Your task to perform on an android device: set the stopwatch Image 0: 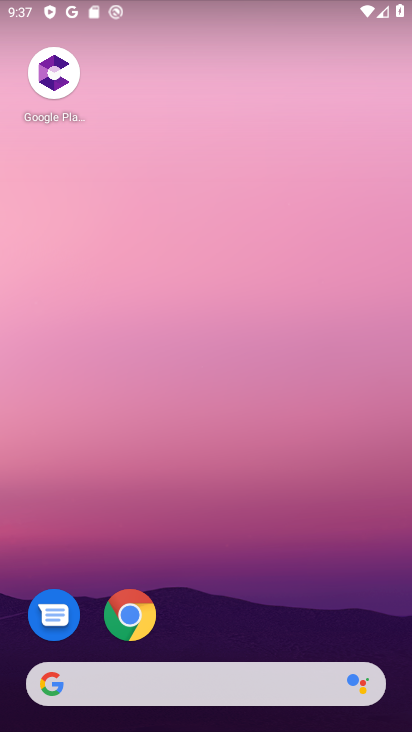
Step 0: drag from (338, 644) to (289, 182)
Your task to perform on an android device: set the stopwatch Image 1: 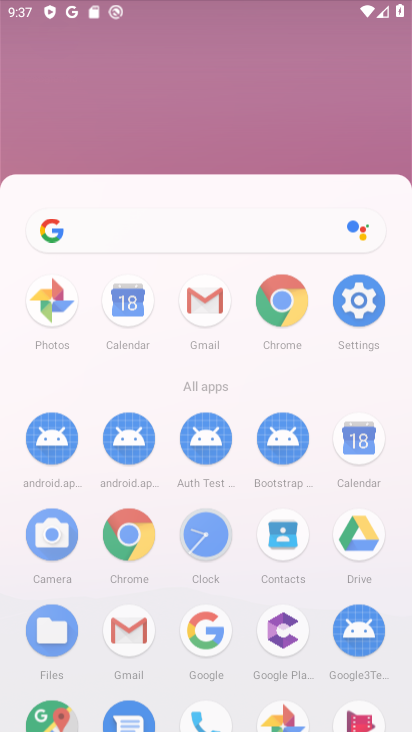
Step 1: click (288, 175)
Your task to perform on an android device: set the stopwatch Image 2: 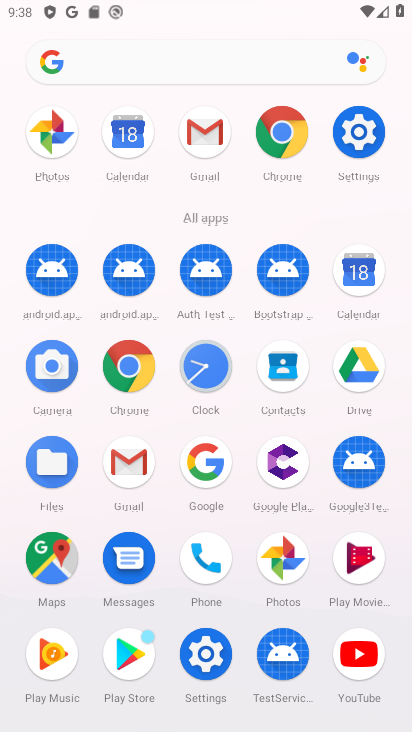
Step 2: click (222, 376)
Your task to perform on an android device: set the stopwatch Image 3: 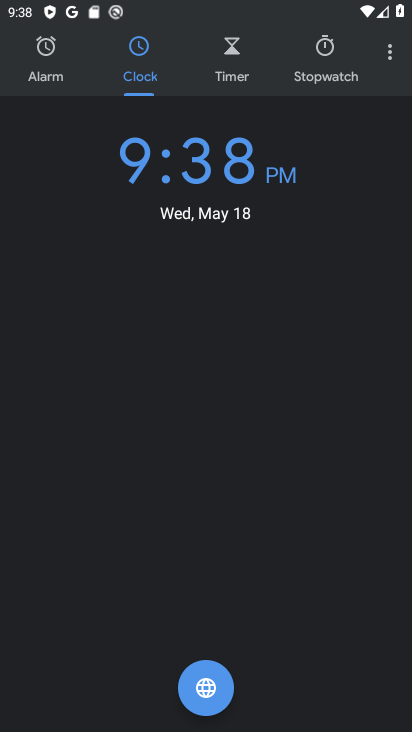
Step 3: click (339, 75)
Your task to perform on an android device: set the stopwatch Image 4: 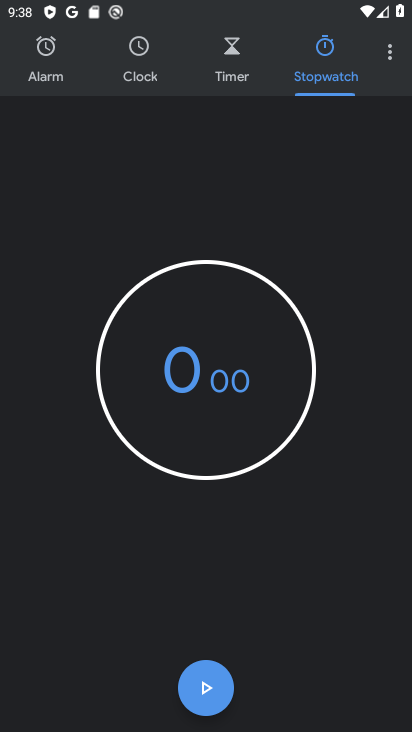
Step 4: task complete